Your task to perform on an android device: delete location history Image 0: 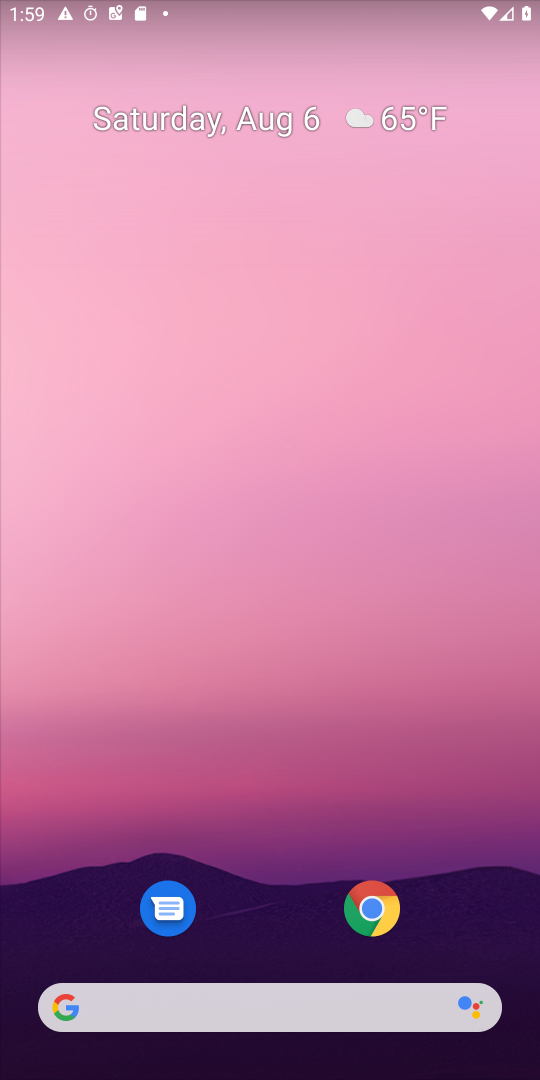
Step 0: drag from (281, 862) to (225, 162)
Your task to perform on an android device: delete location history Image 1: 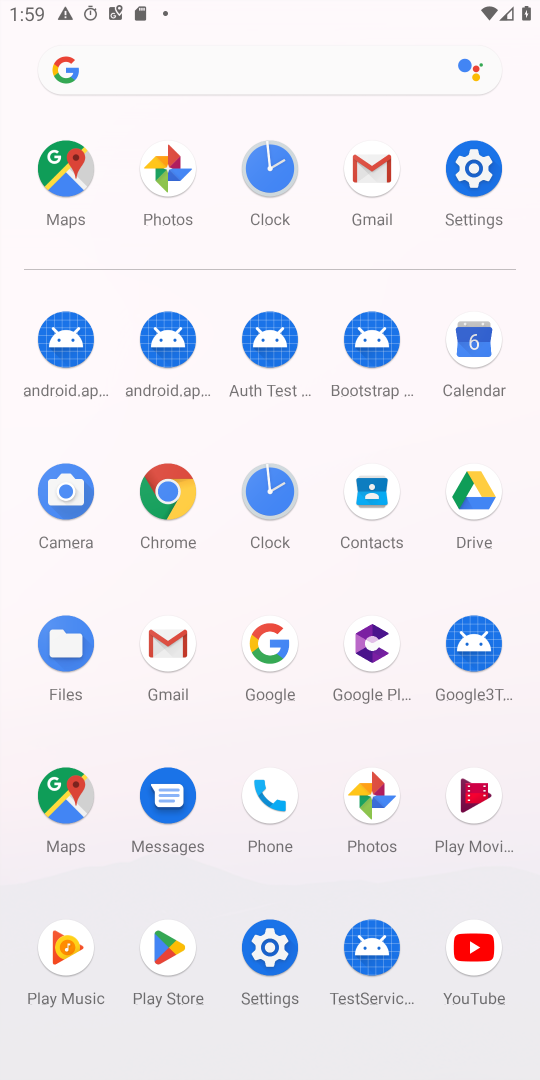
Step 1: click (76, 797)
Your task to perform on an android device: delete location history Image 2: 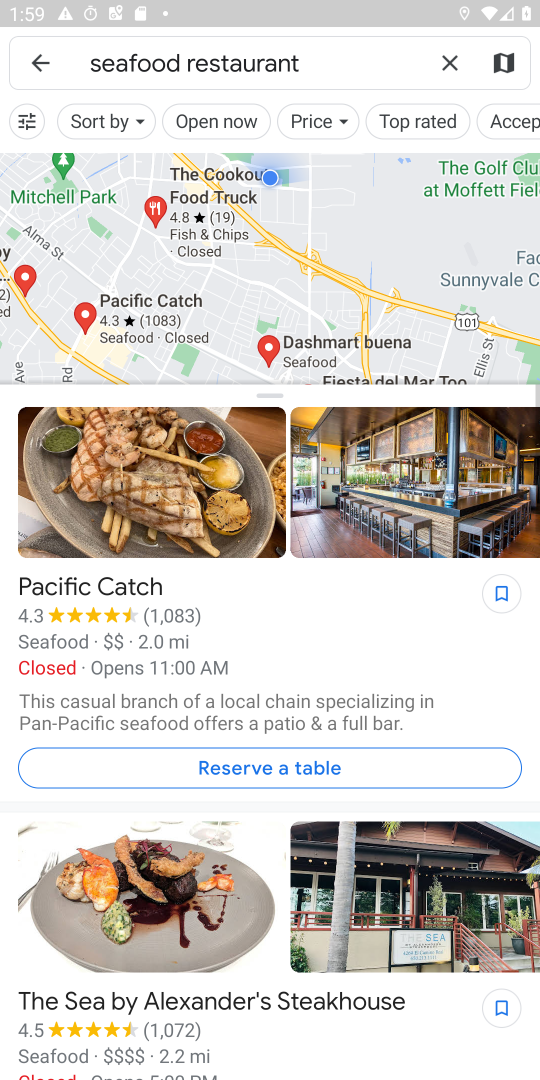
Step 2: click (34, 76)
Your task to perform on an android device: delete location history Image 3: 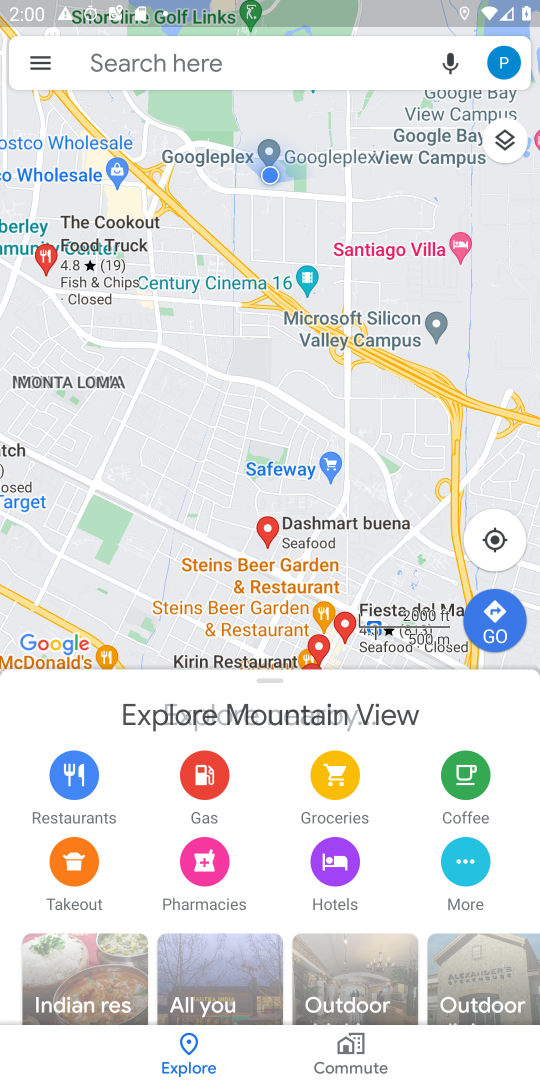
Step 3: click (34, 76)
Your task to perform on an android device: delete location history Image 4: 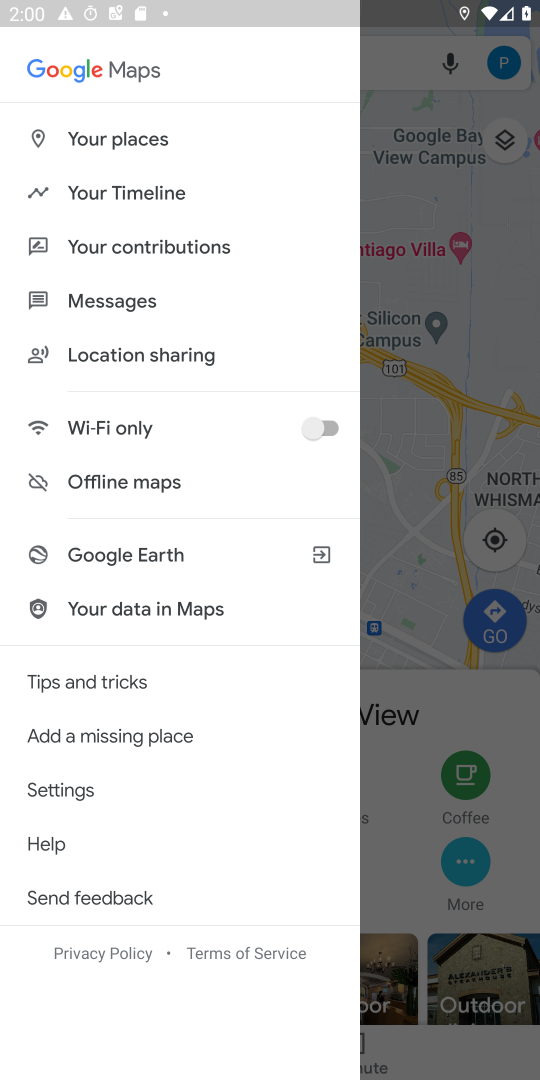
Step 4: click (153, 192)
Your task to perform on an android device: delete location history Image 5: 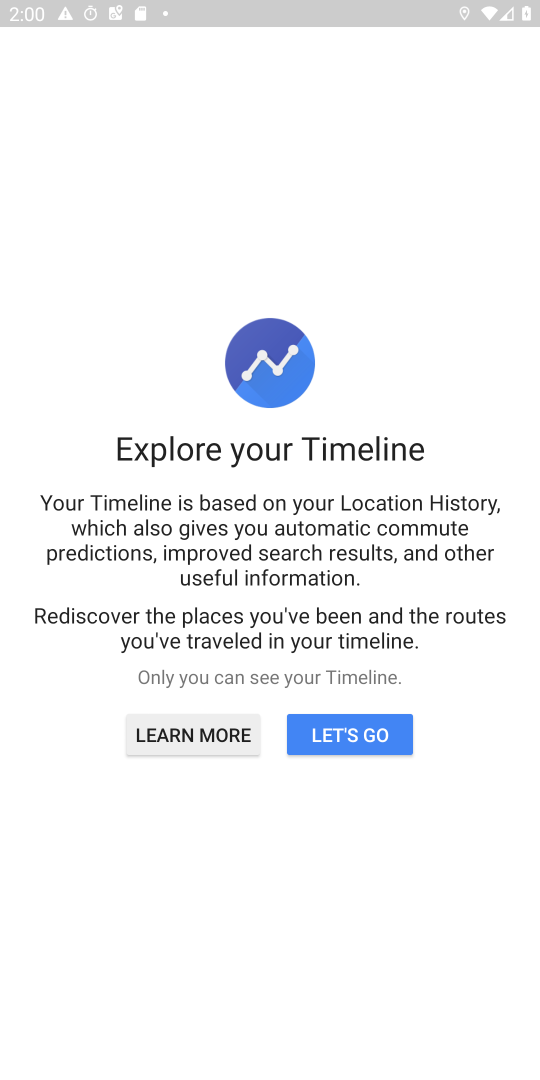
Step 5: click (324, 735)
Your task to perform on an android device: delete location history Image 6: 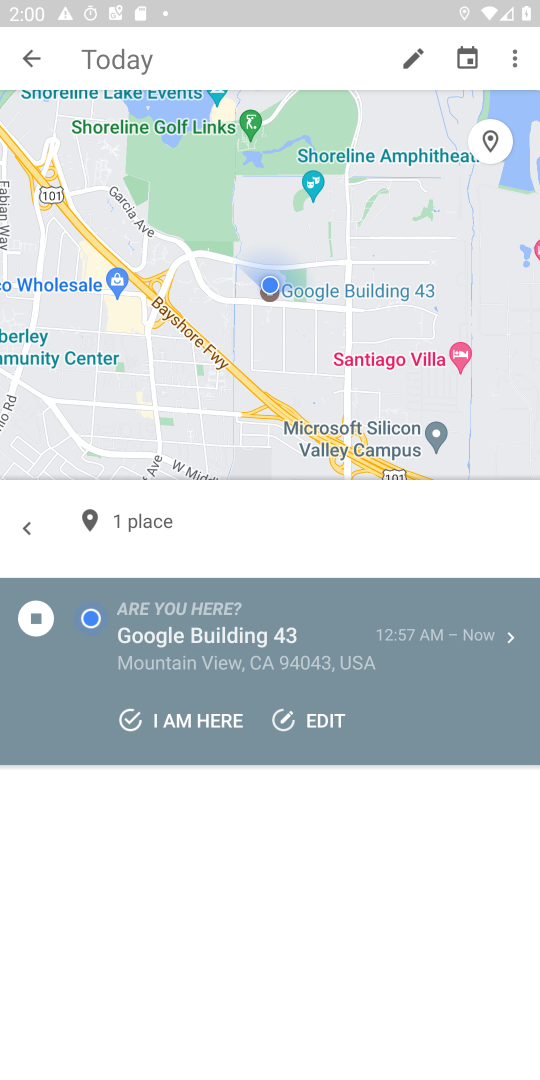
Step 6: click (518, 61)
Your task to perform on an android device: delete location history Image 7: 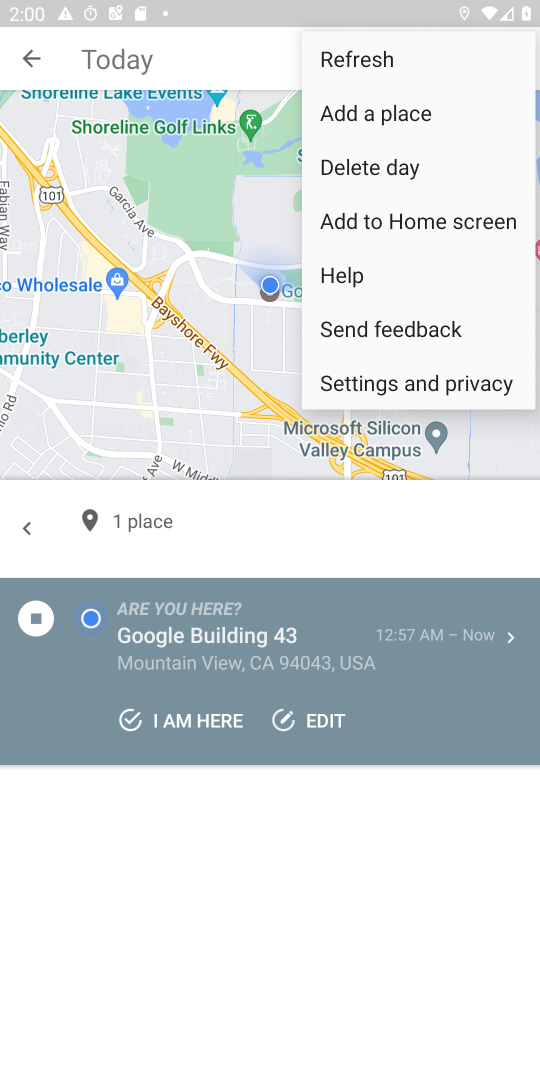
Step 7: click (376, 371)
Your task to perform on an android device: delete location history Image 8: 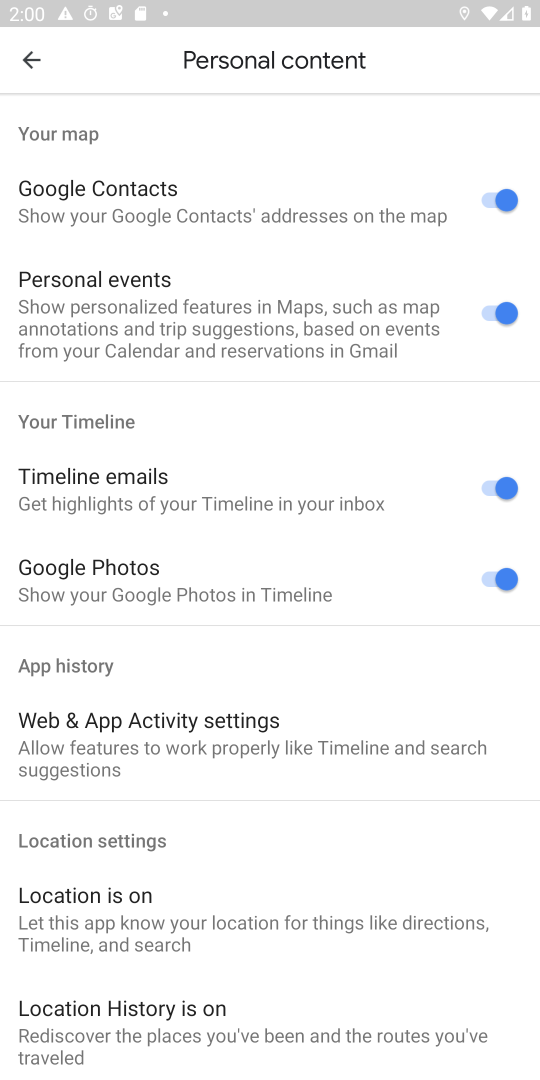
Step 8: drag from (254, 904) to (261, 501)
Your task to perform on an android device: delete location history Image 9: 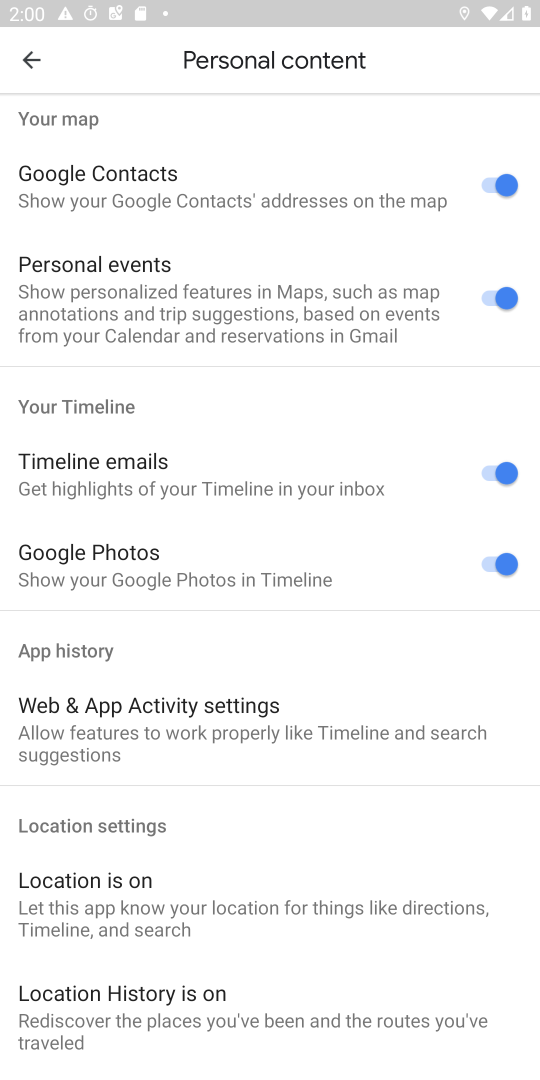
Step 9: drag from (223, 903) to (209, 251)
Your task to perform on an android device: delete location history Image 10: 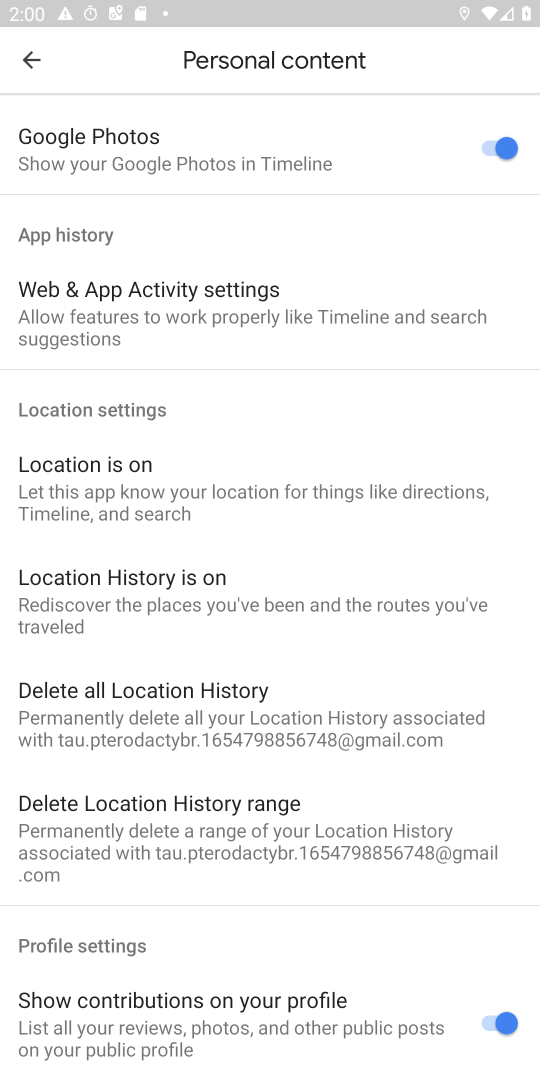
Step 10: click (187, 666)
Your task to perform on an android device: delete location history Image 11: 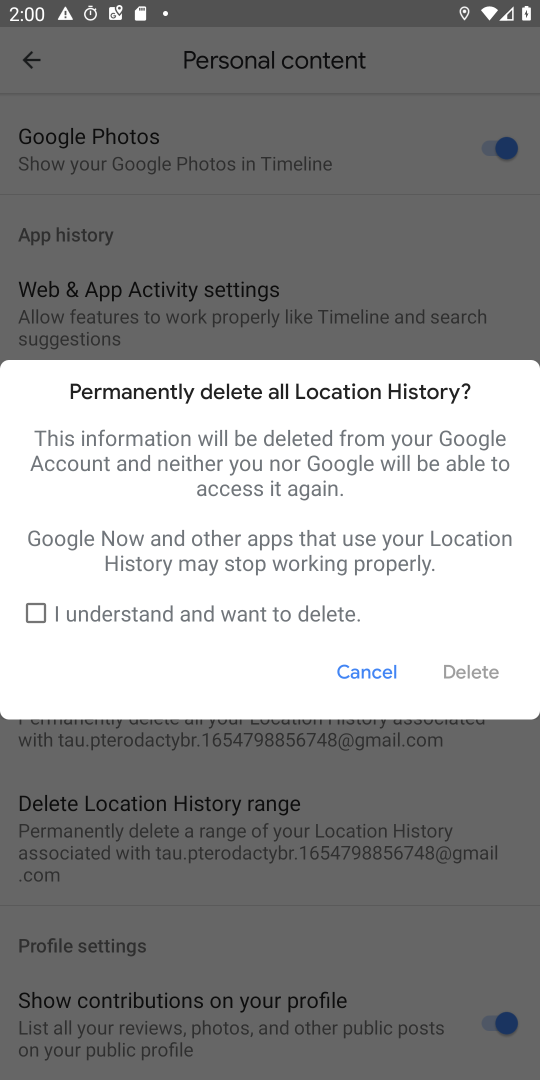
Step 11: click (122, 622)
Your task to perform on an android device: delete location history Image 12: 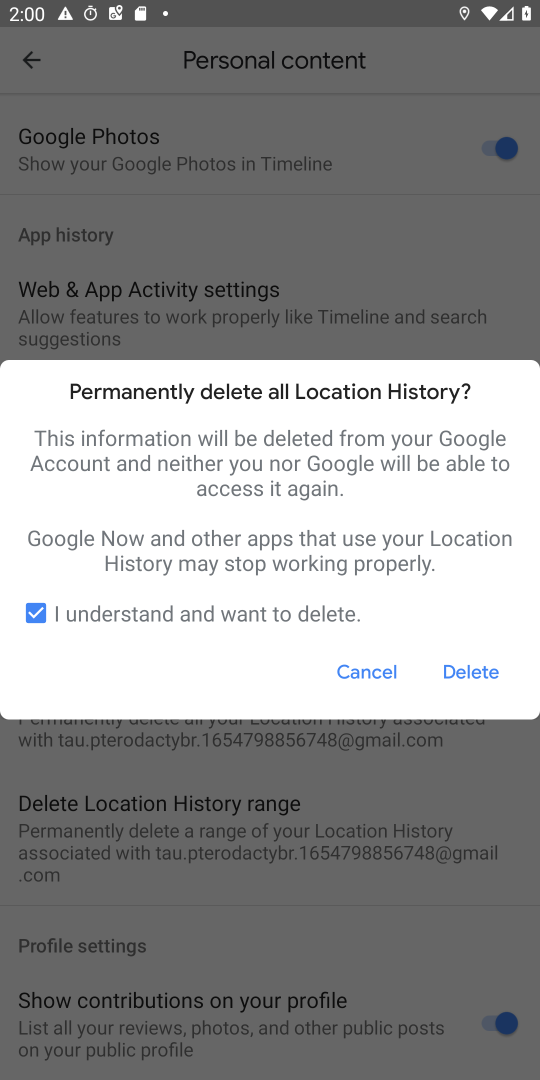
Step 12: click (490, 668)
Your task to perform on an android device: delete location history Image 13: 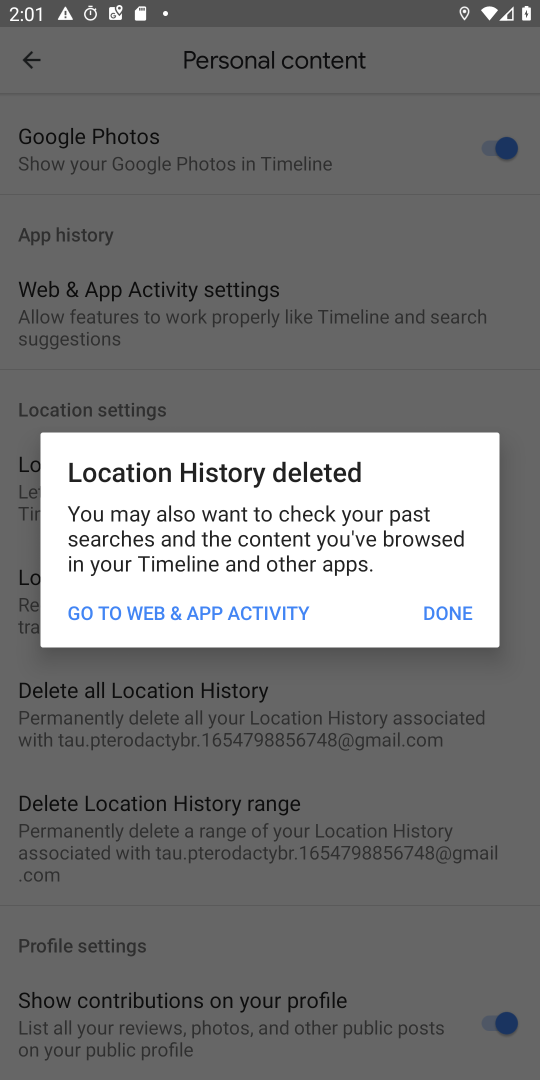
Step 13: click (454, 614)
Your task to perform on an android device: delete location history Image 14: 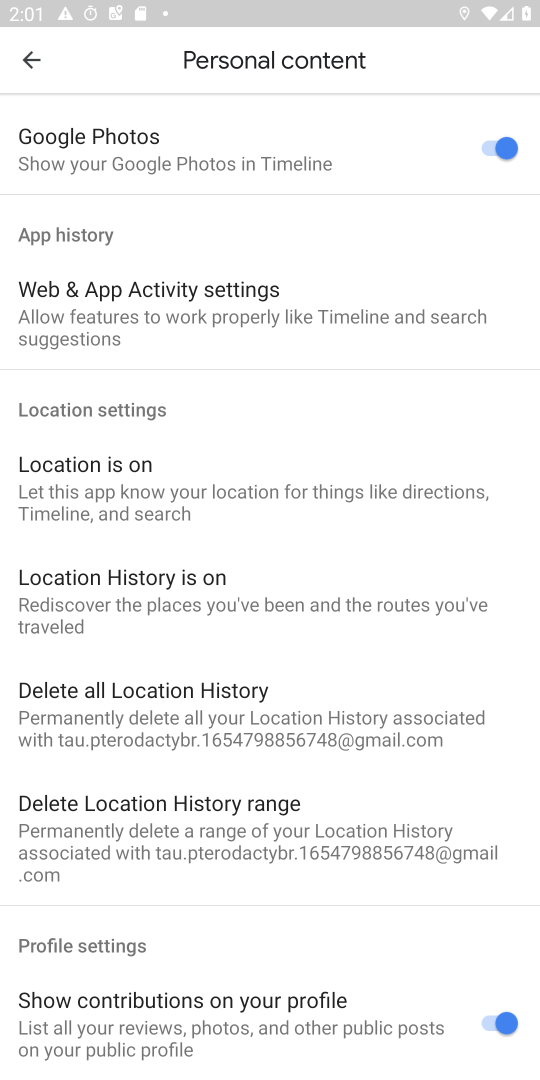
Step 14: task complete